Your task to perform on an android device: delete browsing data in the chrome app Image 0: 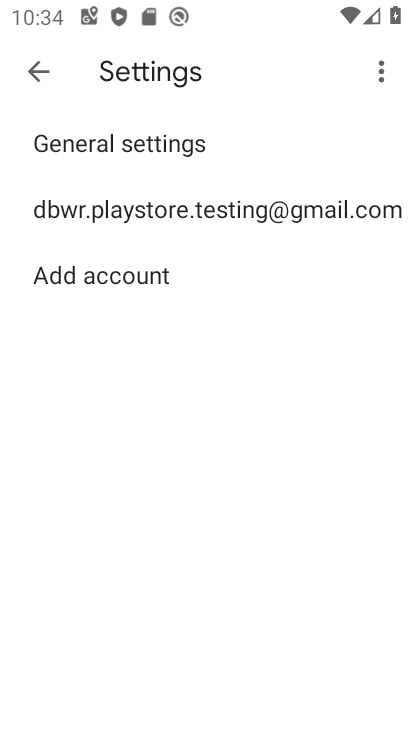
Step 0: press home button
Your task to perform on an android device: delete browsing data in the chrome app Image 1: 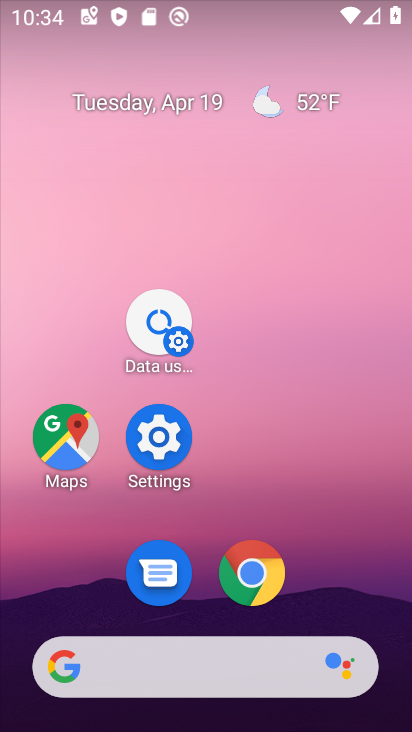
Step 1: click (255, 575)
Your task to perform on an android device: delete browsing data in the chrome app Image 2: 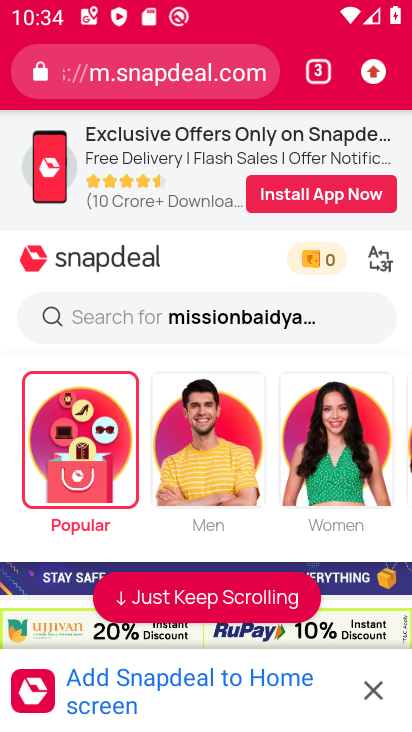
Step 2: click (374, 72)
Your task to perform on an android device: delete browsing data in the chrome app Image 3: 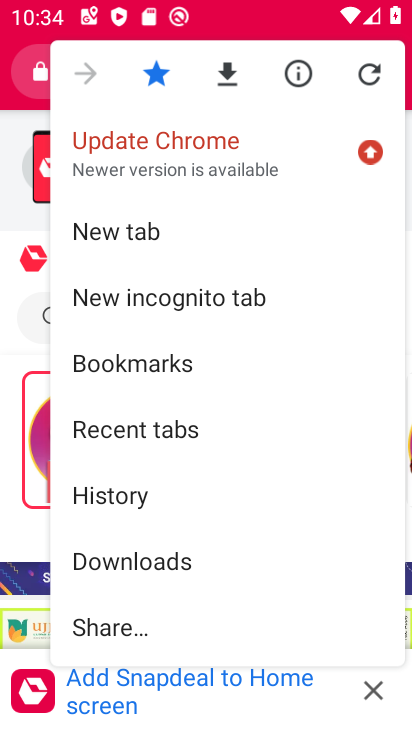
Step 3: drag from (246, 464) to (259, 206)
Your task to perform on an android device: delete browsing data in the chrome app Image 4: 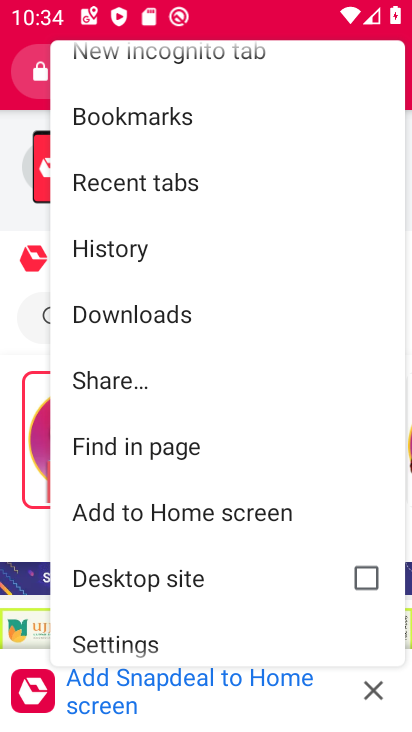
Step 4: drag from (222, 554) to (238, 250)
Your task to perform on an android device: delete browsing data in the chrome app Image 5: 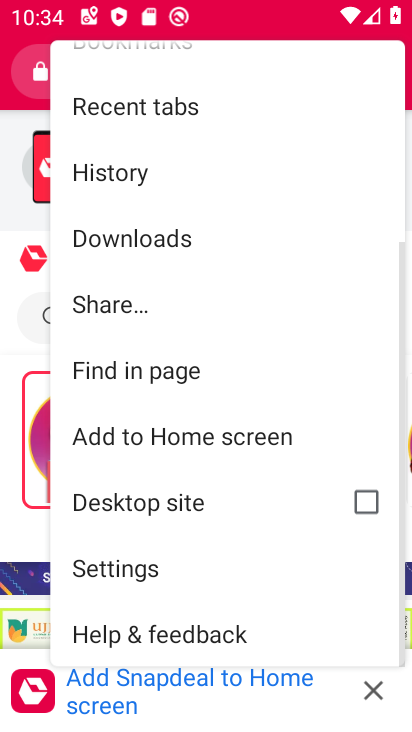
Step 5: click (122, 571)
Your task to perform on an android device: delete browsing data in the chrome app Image 6: 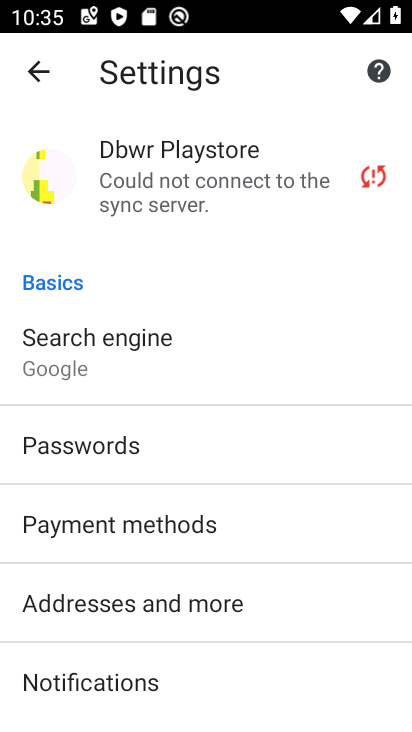
Step 6: drag from (188, 544) to (207, 185)
Your task to perform on an android device: delete browsing data in the chrome app Image 7: 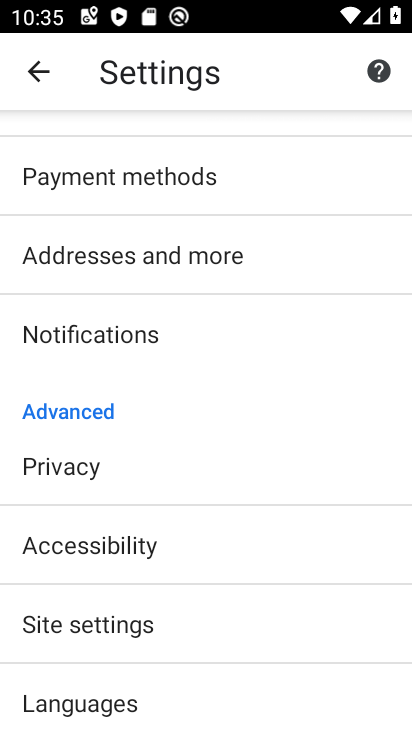
Step 7: click (45, 473)
Your task to perform on an android device: delete browsing data in the chrome app Image 8: 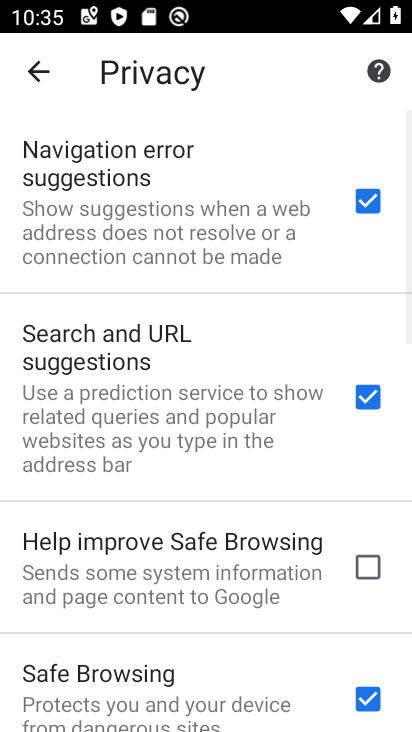
Step 8: drag from (221, 620) to (238, 276)
Your task to perform on an android device: delete browsing data in the chrome app Image 9: 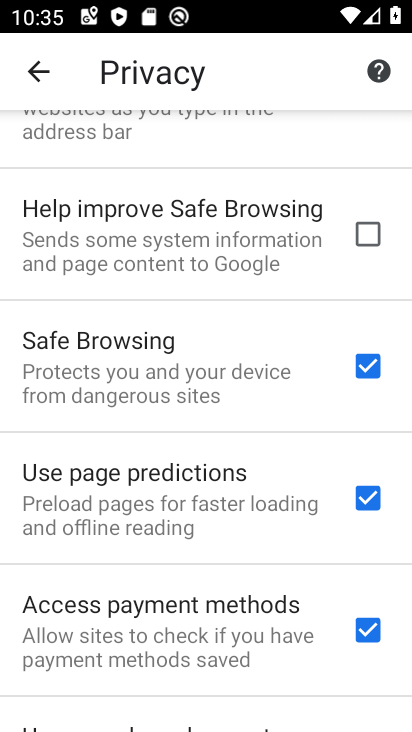
Step 9: drag from (185, 597) to (184, 206)
Your task to perform on an android device: delete browsing data in the chrome app Image 10: 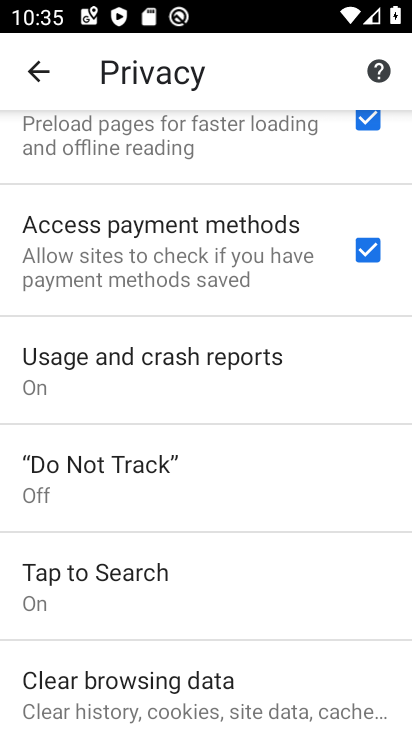
Step 10: drag from (175, 604) to (175, 319)
Your task to perform on an android device: delete browsing data in the chrome app Image 11: 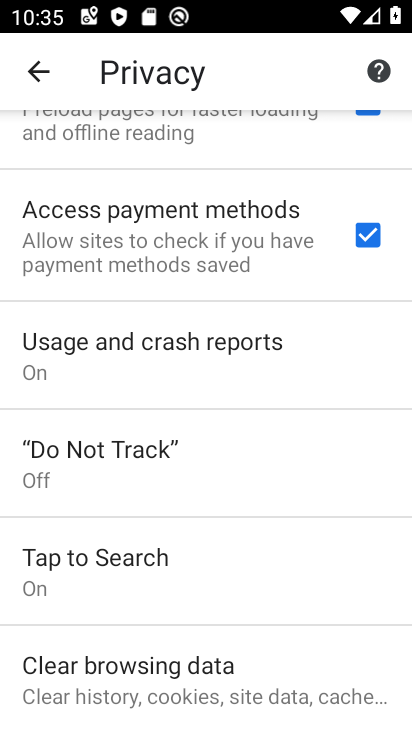
Step 11: click (160, 675)
Your task to perform on an android device: delete browsing data in the chrome app Image 12: 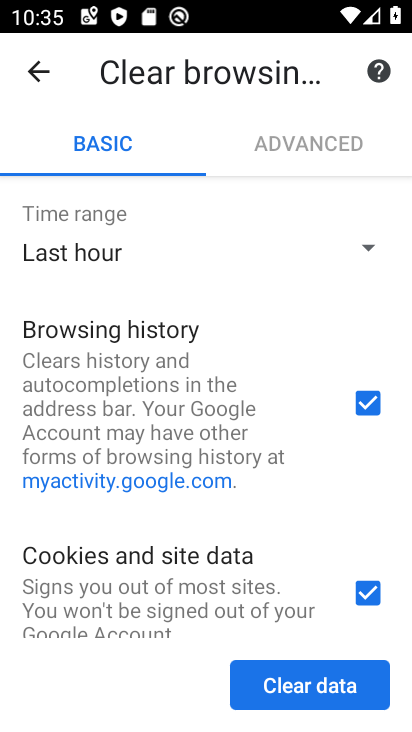
Step 12: click (357, 582)
Your task to perform on an android device: delete browsing data in the chrome app Image 13: 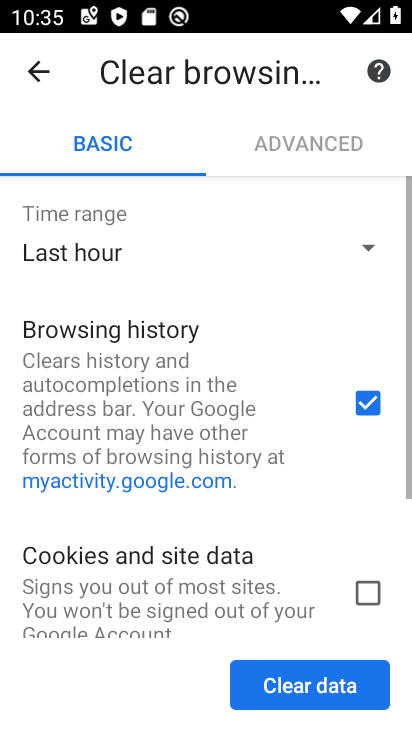
Step 13: drag from (151, 551) to (169, 242)
Your task to perform on an android device: delete browsing data in the chrome app Image 14: 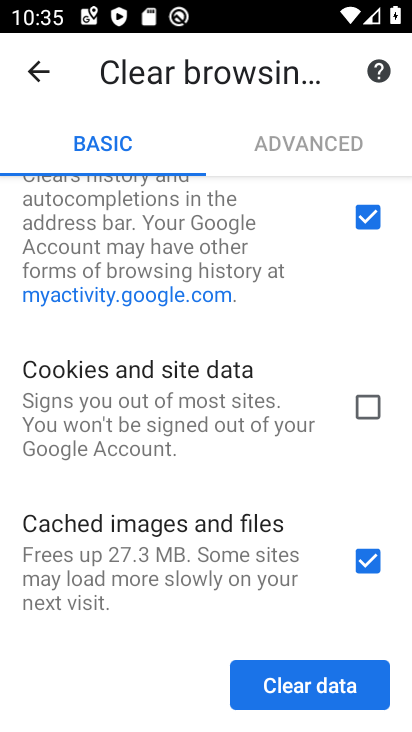
Step 14: click (375, 561)
Your task to perform on an android device: delete browsing data in the chrome app Image 15: 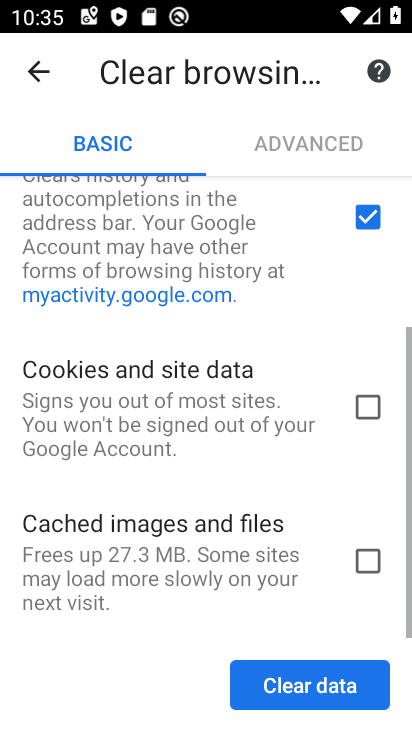
Step 15: drag from (194, 547) to (196, 337)
Your task to perform on an android device: delete browsing data in the chrome app Image 16: 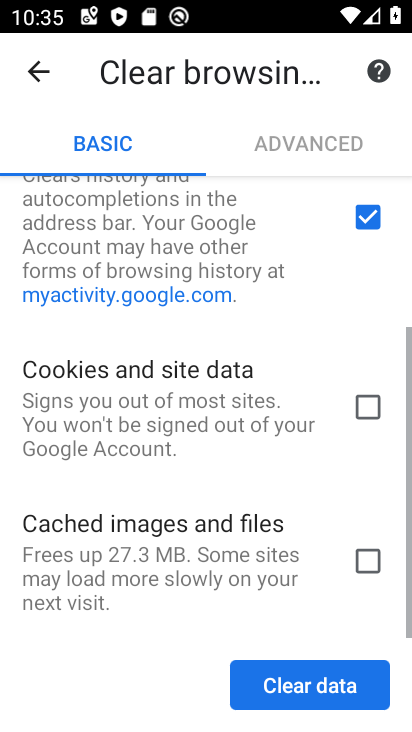
Step 16: click (301, 694)
Your task to perform on an android device: delete browsing data in the chrome app Image 17: 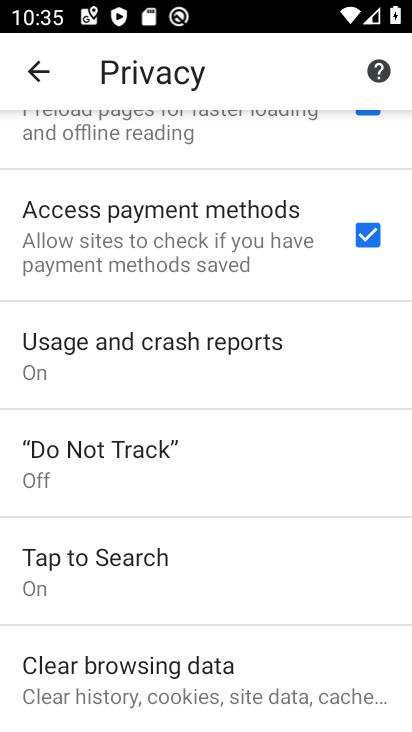
Step 17: task complete